Your task to perform on an android device: What's the time in San Francisco? Image 0: 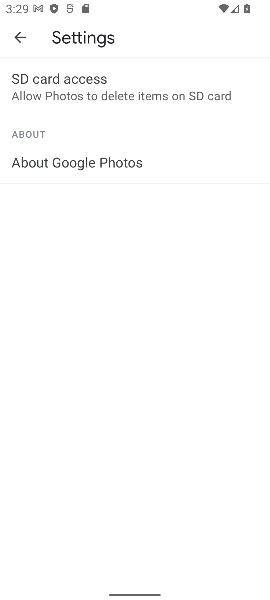
Step 0: press home button
Your task to perform on an android device: What's the time in San Francisco? Image 1: 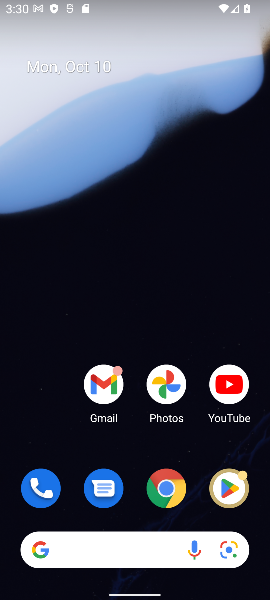
Step 1: click (118, 539)
Your task to perform on an android device: What's the time in San Francisco? Image 2: 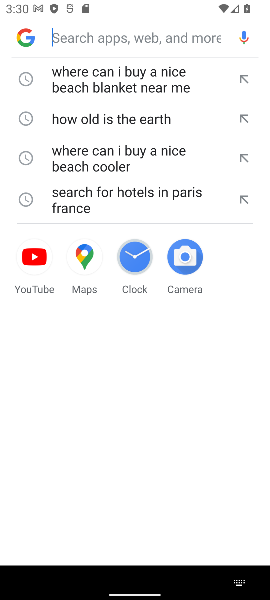
Step 2: click (119, 36)
Your task to perform on an android device: What's the time in San Francisco? Image 3: 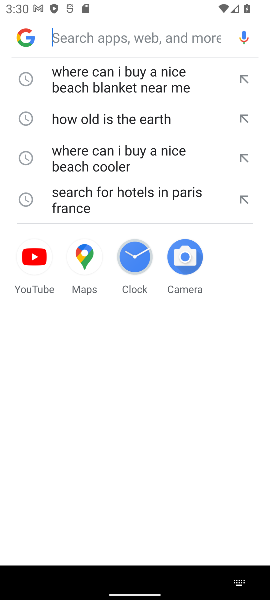
Step 3: type "What's the time in San Francisco"
Your task to perform on an android device: What's the time in San Francisco? Image 4: 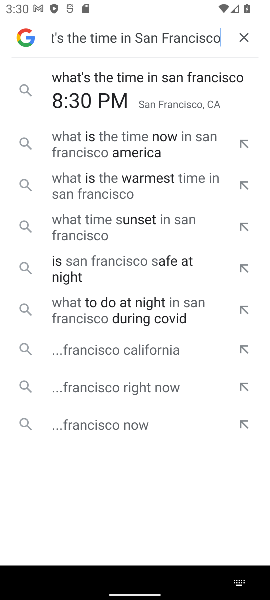
Step 4: click (101, 74)
Your task to perform on an android device: What's the time in San Francisco? Image 5: 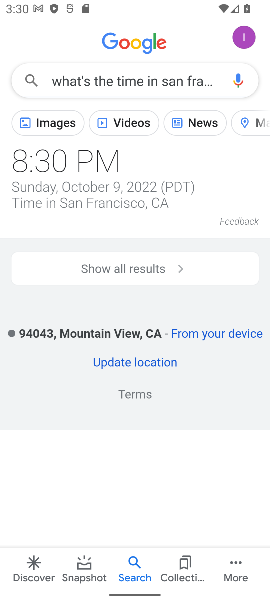
Step 5: task complete